Your task to perform on an android device: all mails in gmail Image 0: 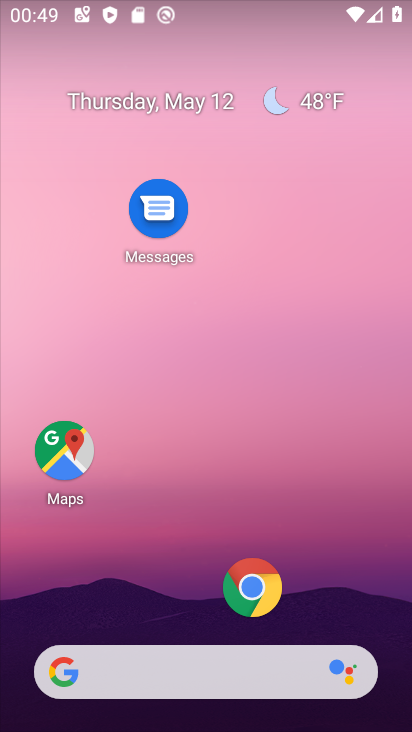
Step 0: drag from (199, 638) to (131, 5)
Your task to perform on an android device: all mails in gmail Image 1: 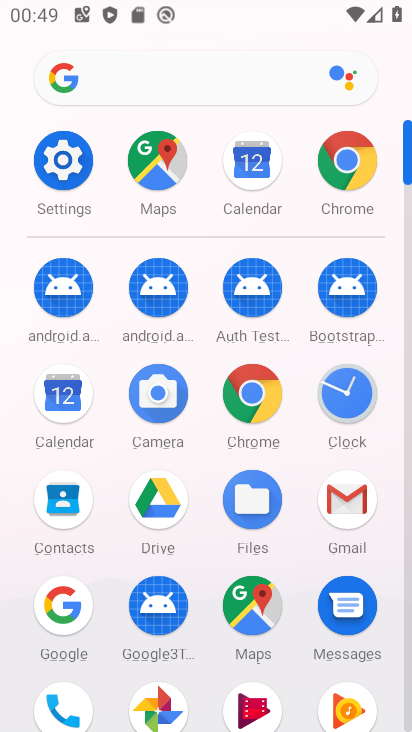
Step 1: click (356, 507)
Your task to perform on an android device: all mails in gmail Image 2: 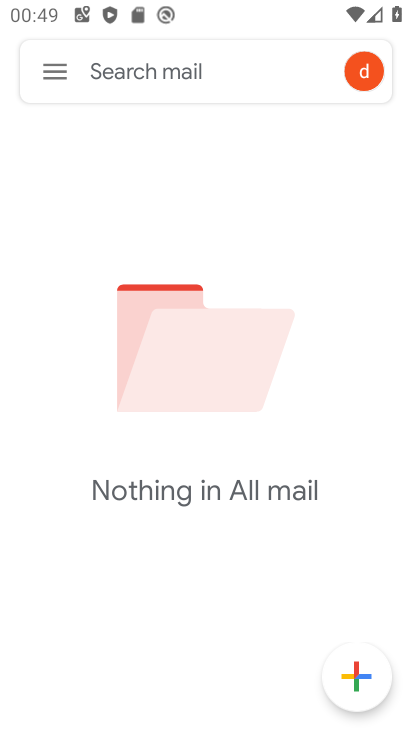
Step 2: click (60, 60)
Your task to perform on an android device: all mails in gmail Image 3: 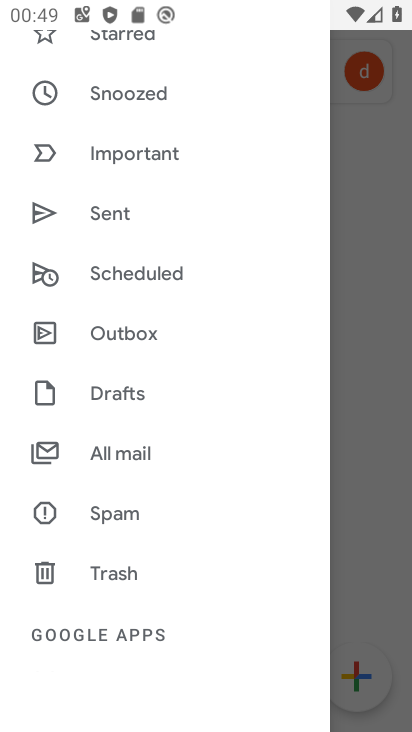
Step 3: click (144, 444)
Your task to perform on an android device: all mails in gmail Image 4: 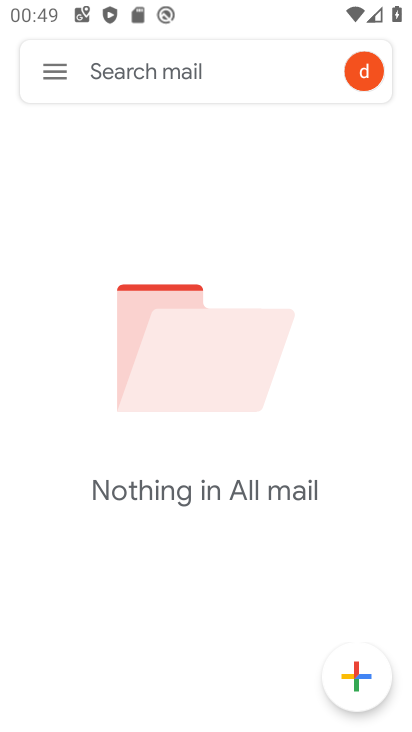
Step 4: task complete